Your task to perform on an android device: change the clock style Image 0: 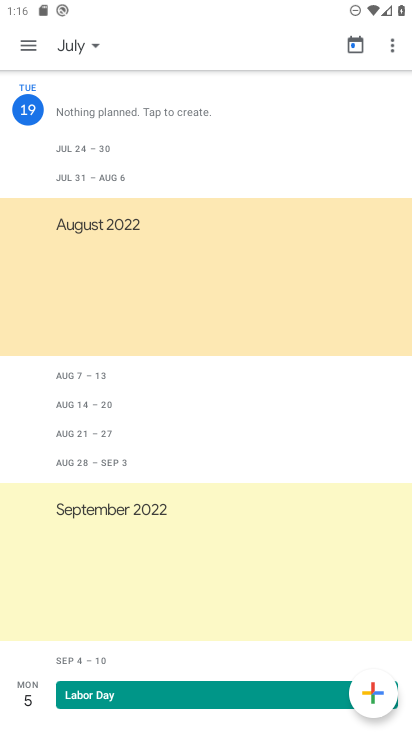
Step 0: press home button
Your task to perform on an android device: change the clock style Image 1: 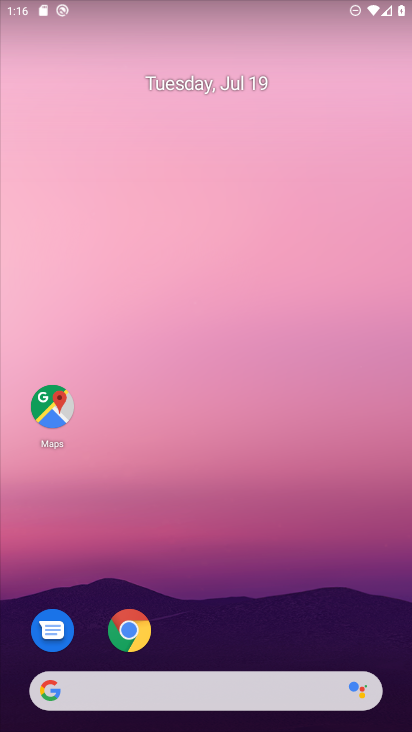
Step 1: drag from (140, 702) to (315, 68)
Your task to perform on an android device: change the clock style Image 2: 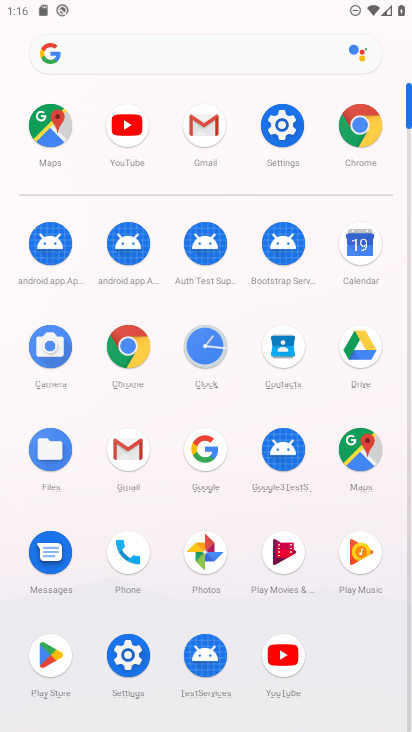
Step 2: click (212, 344)
Your task to perform on an android device: change the clock style Image 3: 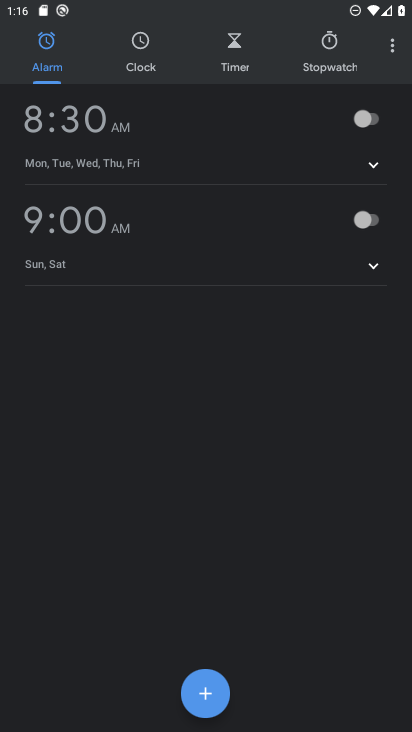
Step 3: click (389, 45)
Your task to perform on an android device: change the clock style Image 4: 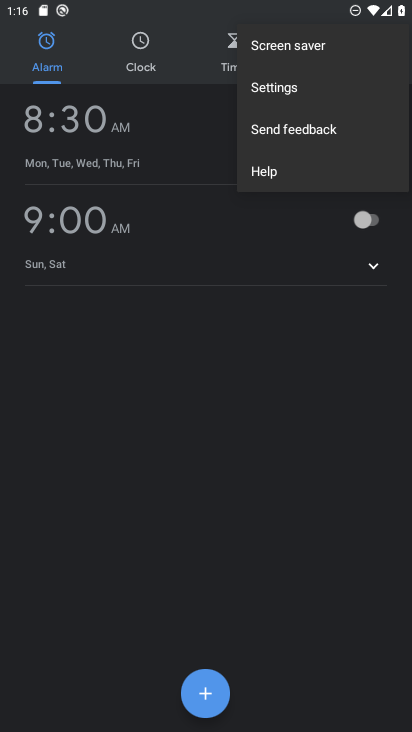
Step 4: click (281, 91)
Your task to perform on an android device: change the clock style Image 5: 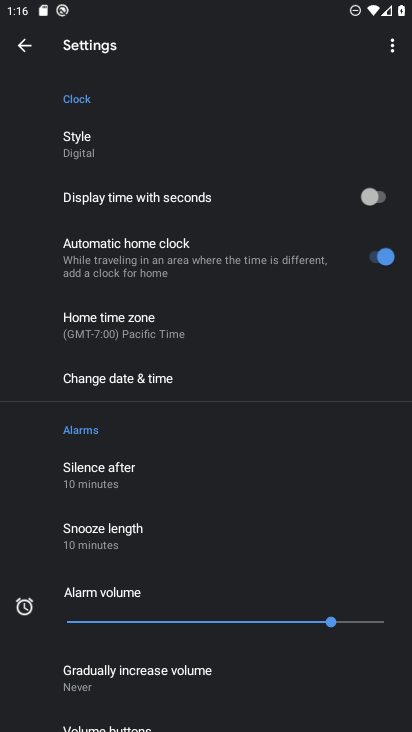
Step 5: click (86, 146)
Your task to perform on an android device: change the clock style Image 6: 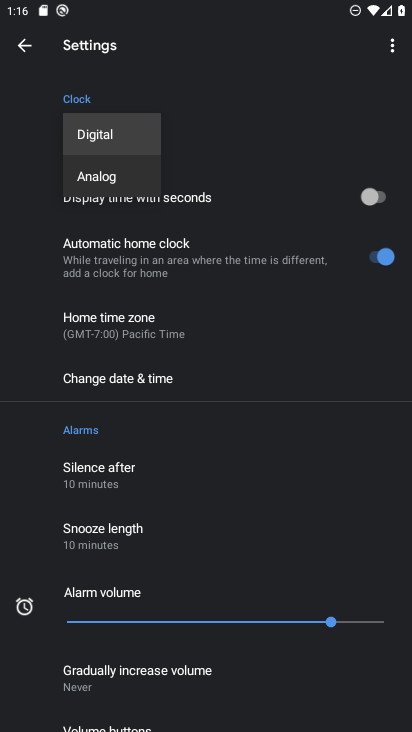
Step 6: click (117, 189)
Your task to perform on an android device: change the clock style Image 7: 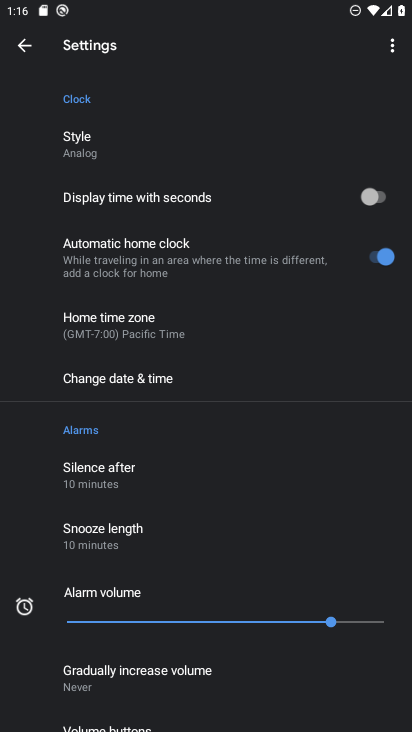
Step 7: task complete